Your task to perform on an android device: delete a single message in the gmail app Image 0: 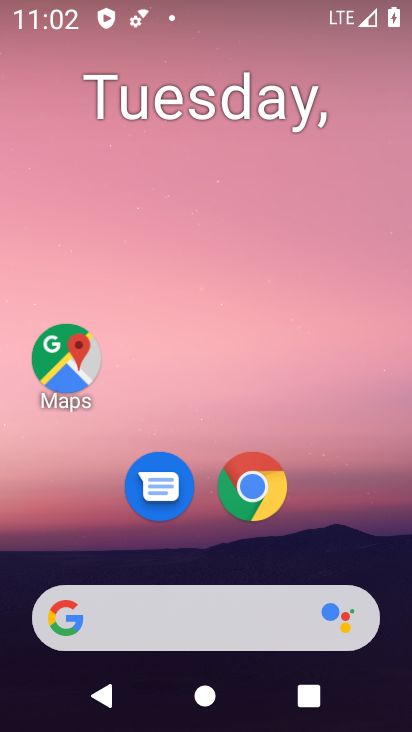
Step 0: drag from (363, 549) to (368, 88)
Your task to perform on an android device: delete a single message in the gmail app Image 1: 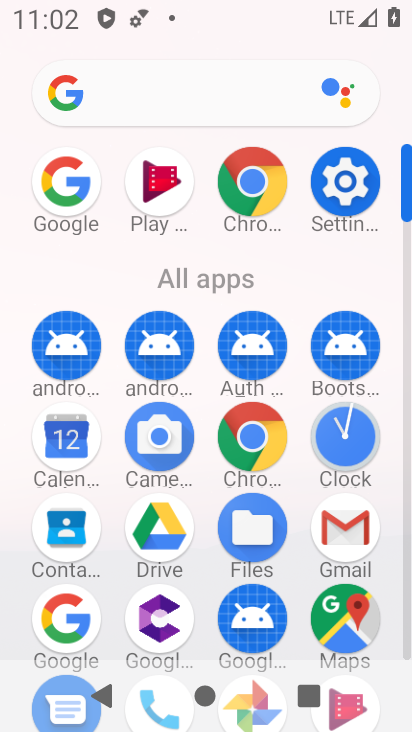
Step 1: click (349, 526)
Your task to perform on an android device: delete a single message in the gmail app Image 2: 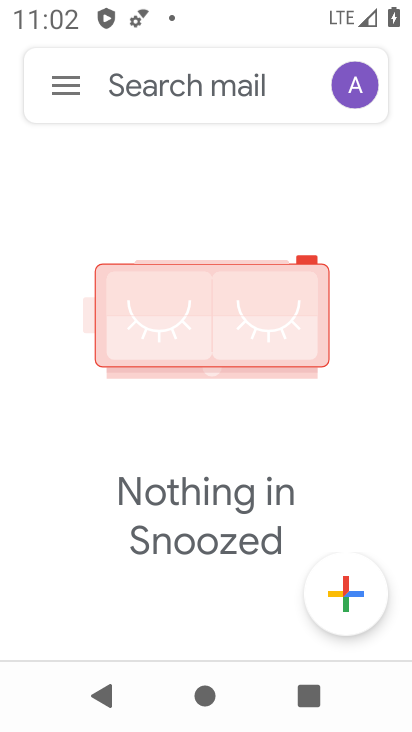
Step 2: click (67, 82)
Your task to perform on an android device: delete a single message in the gmail app Image 3: 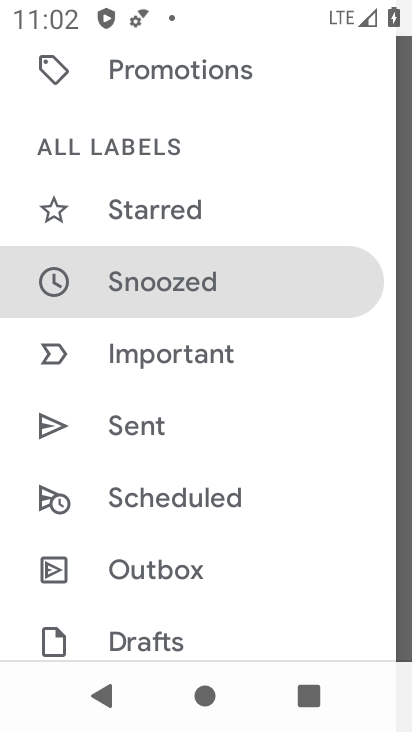
Step 3: drag from (283, 270) to (288, 388)
Your task to perform on an android device: delete a single message in the gmail app Image 4: 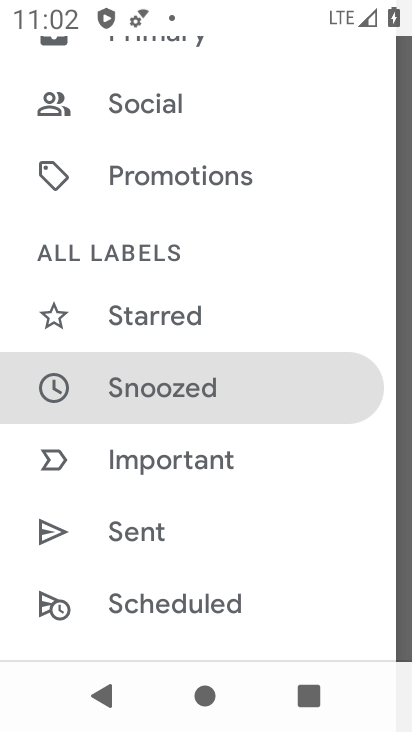
Step 4: drag from (306, 269) to (311, 434)
Your task to perform on an android device: delete a single message in the gmail app Image 5: 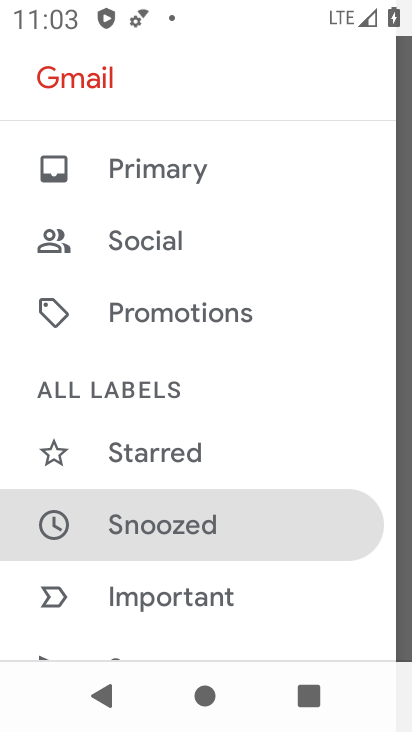
Step 5: click (218, 188)
Your task to perform on an android device: delete a single message in the gmail app Image 6: 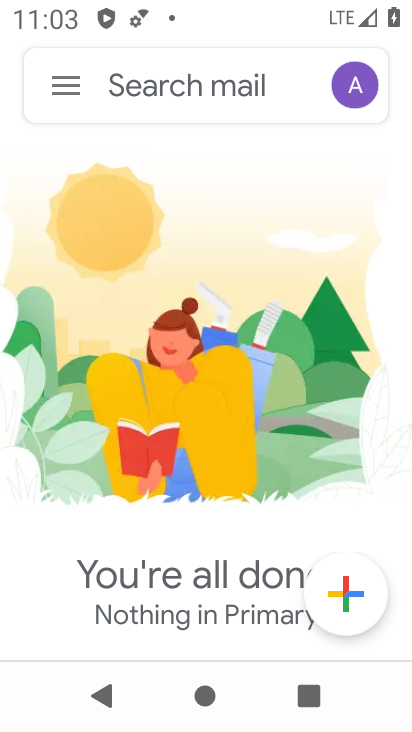
Step 6: task complete